Your task to perform on an android device: Open sound settings Image 0: 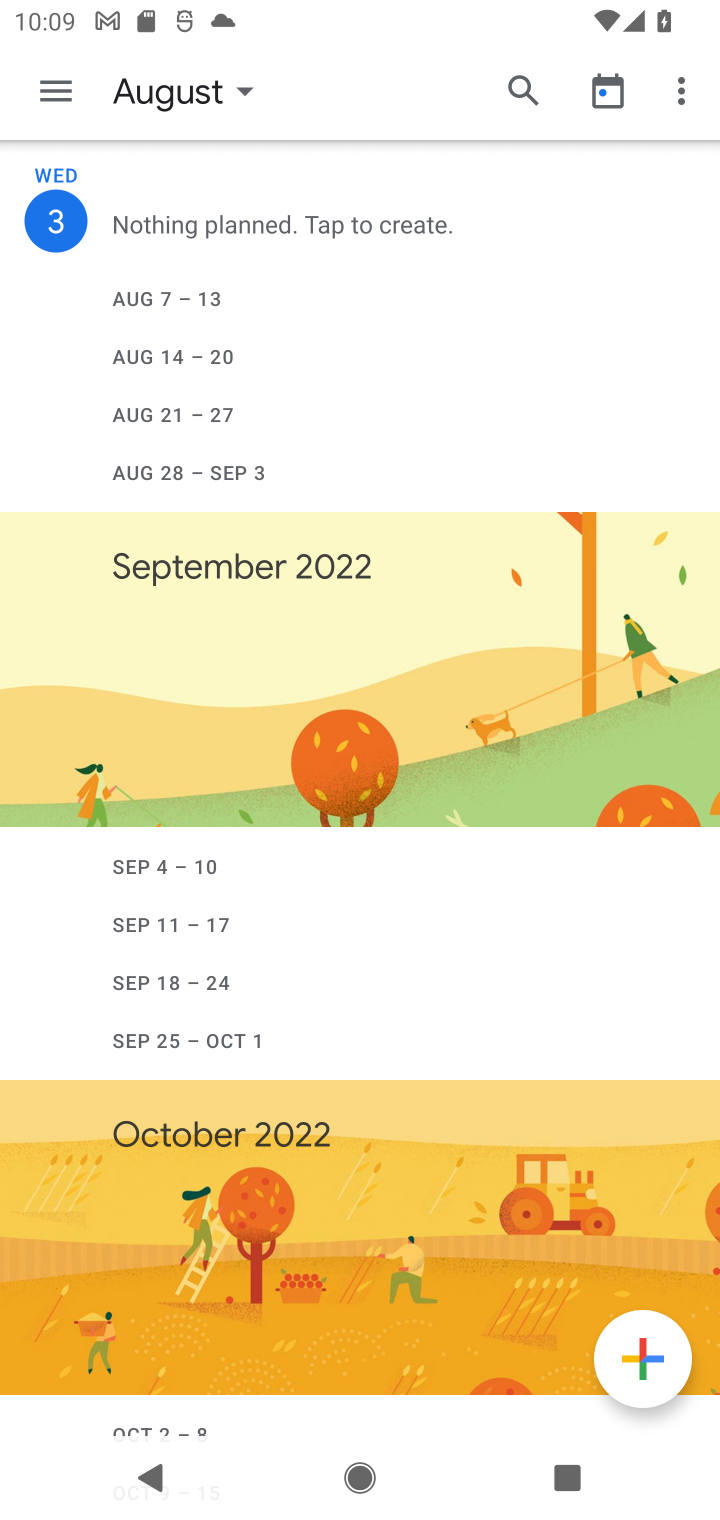
Step 0: press home button
Your task to perform on an android device: Open sound settings Image 1: 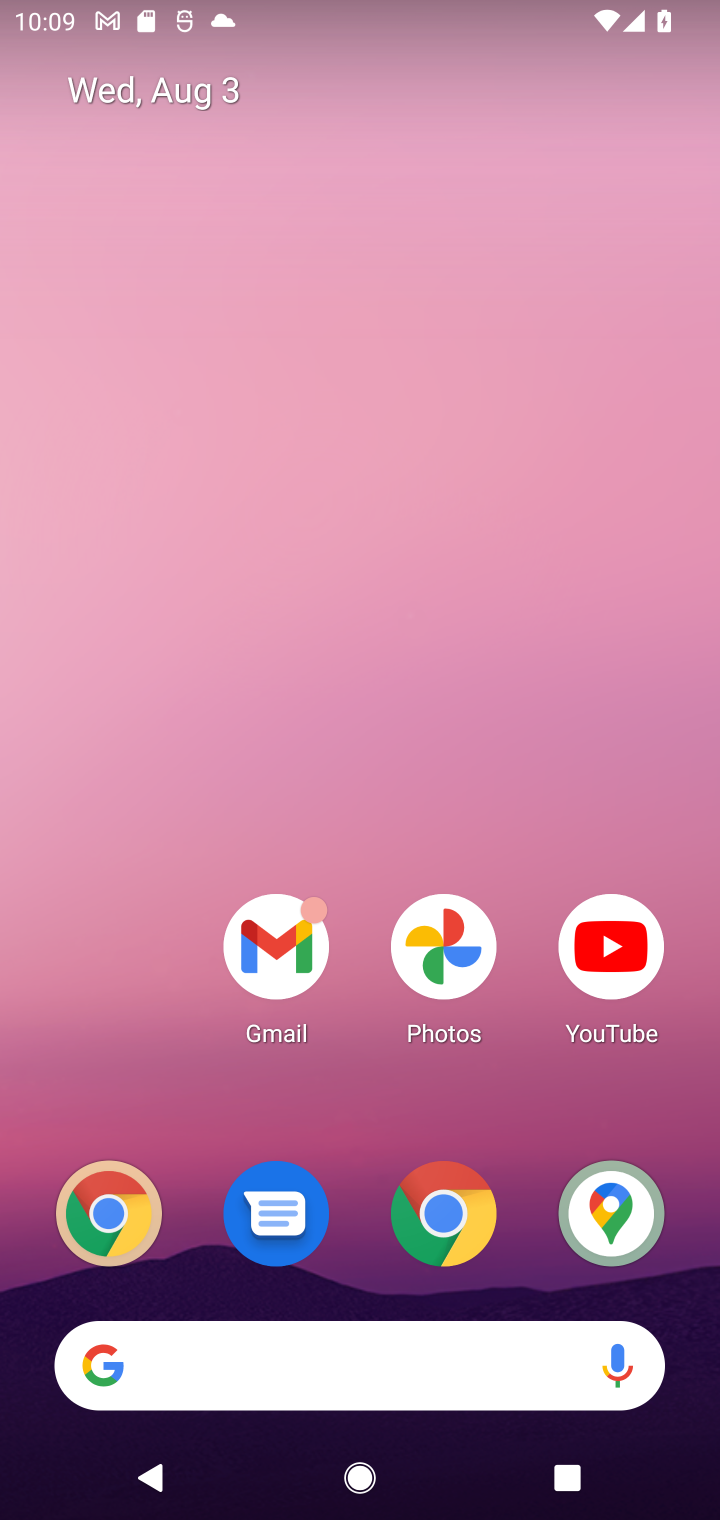
Step 1: drag from (310, 1326) to (476, 78)
Your task to perform on an android device: Open sound settings Image 2: 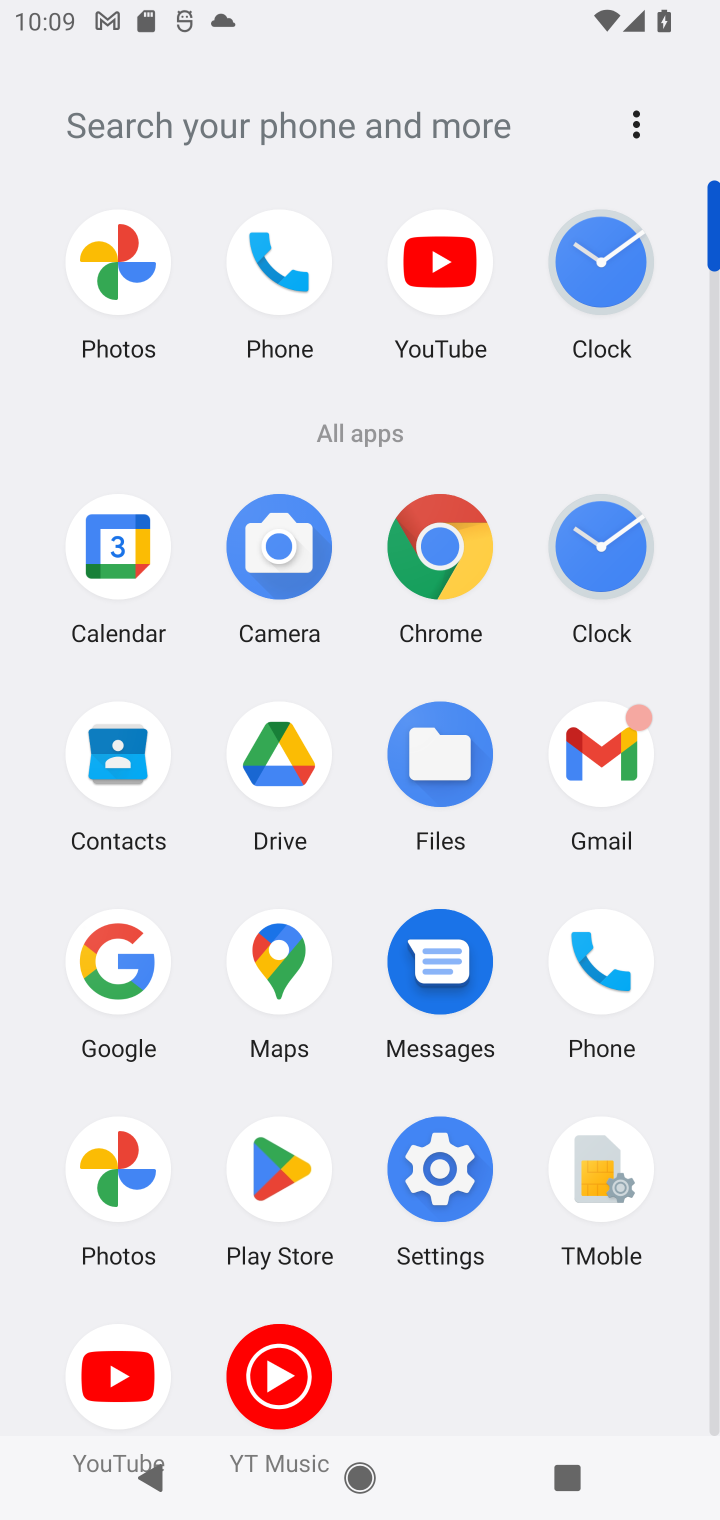
Step 2: click (407, 1219)
Your task to perform on an android device: Open sound settings Image 3: 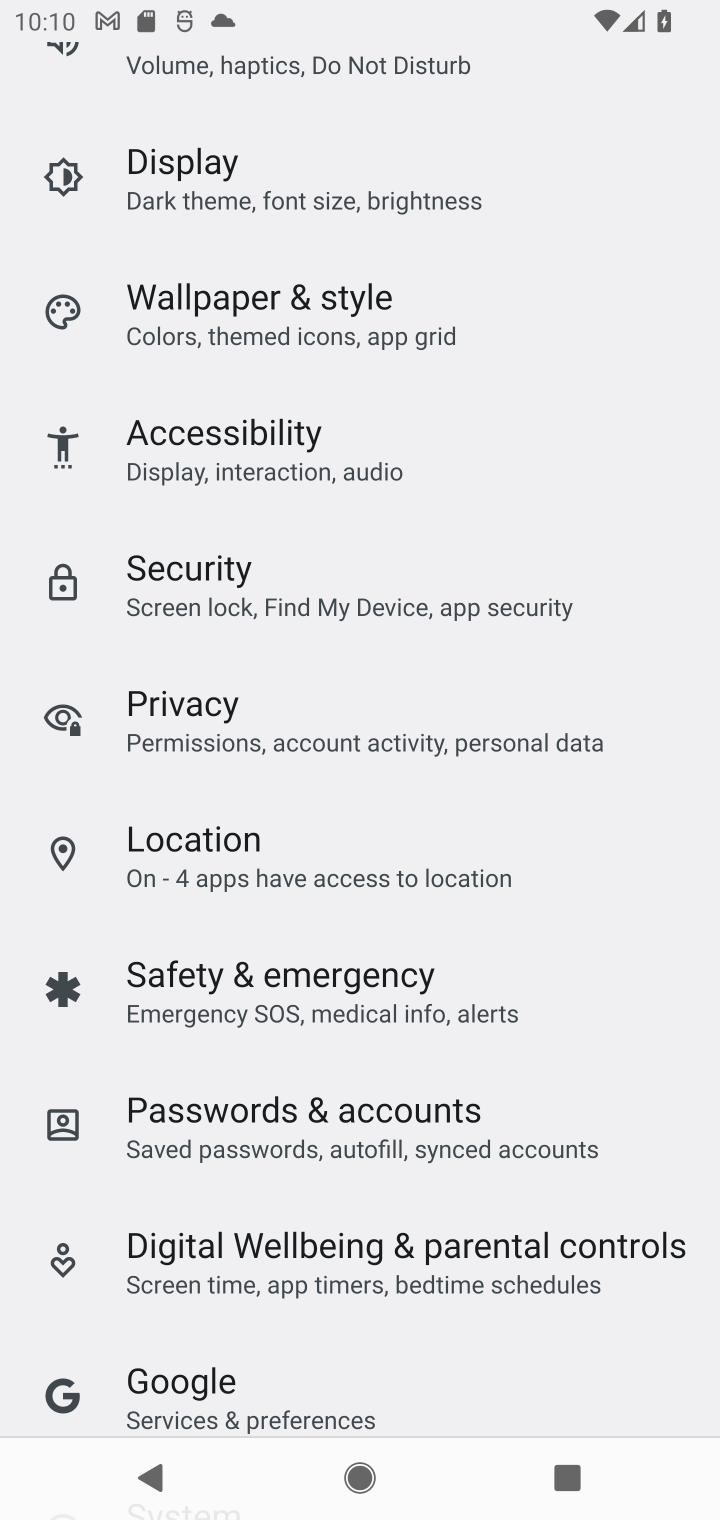
Step 3: drag from (210, 301) to (223, 884)
Your task to perform on an android device: Open sound settings Image 4: 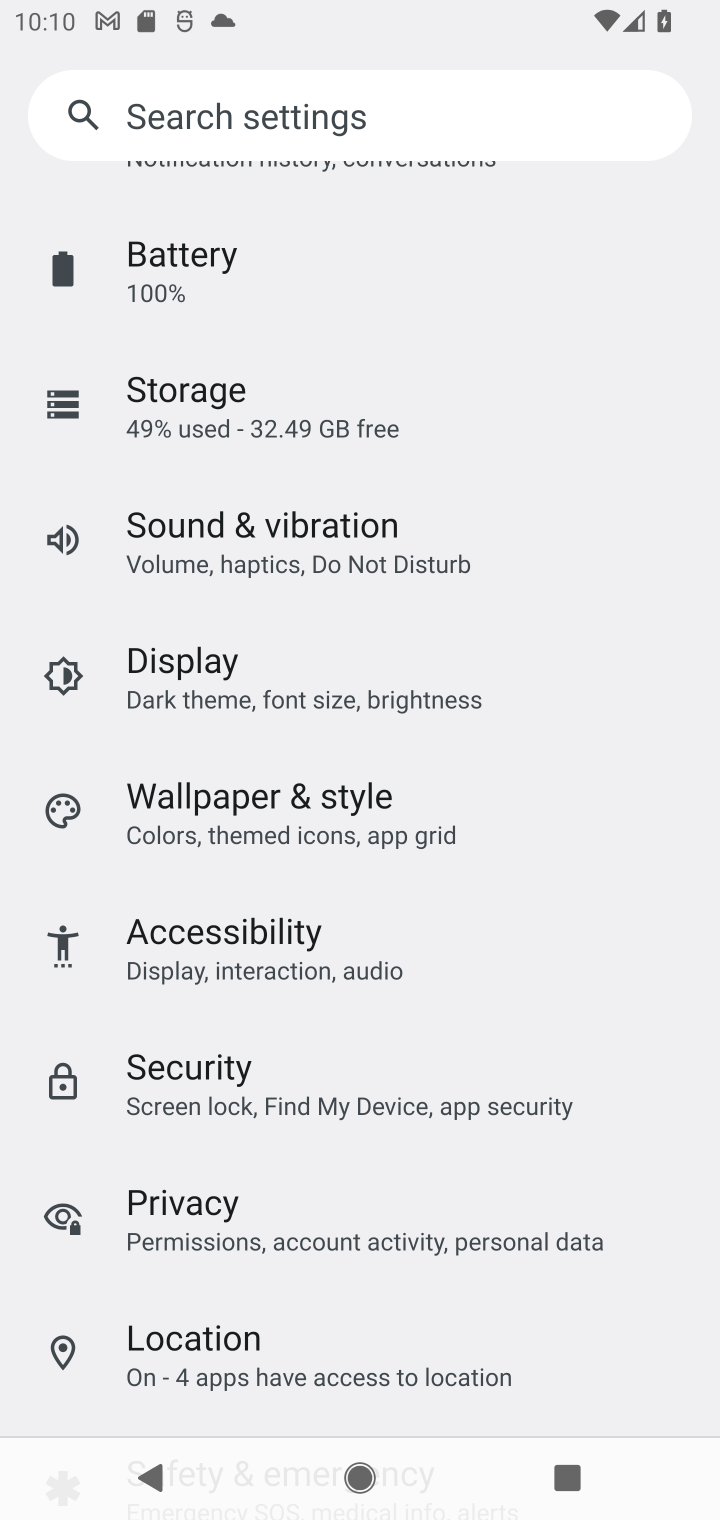
Step 4: click (260, 541)
Your task to perform on an android device: Open sound settings Image 5: 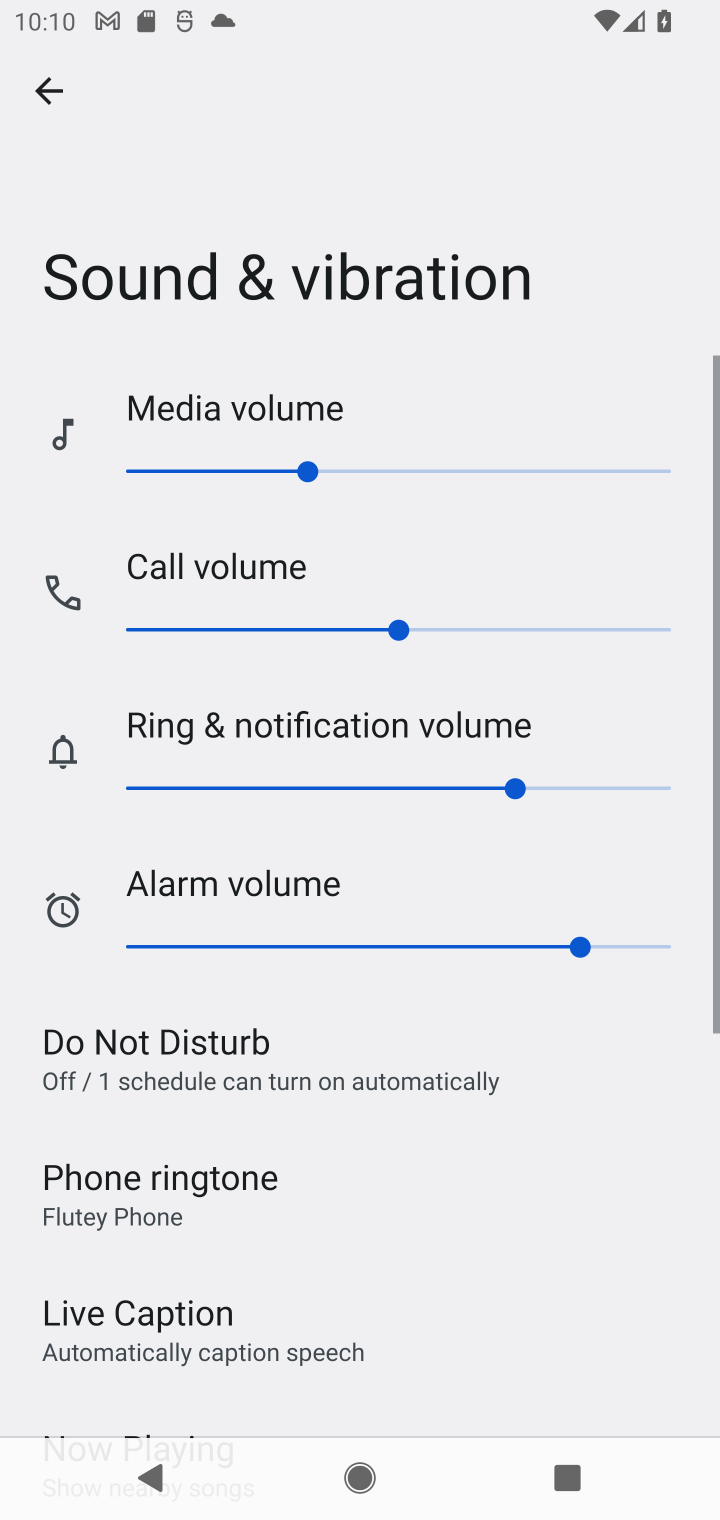
Step 5: task complete